Your task to perform on an android device: Open location settings Image 0: 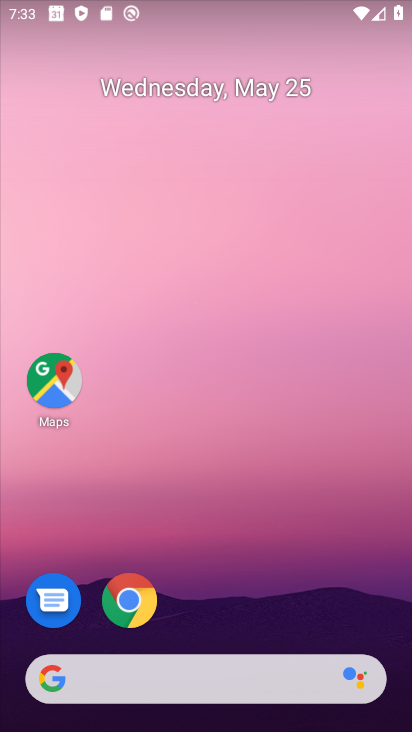
Step 0: drag from (370, 632) to (341, 242)
Your task to perform on an android device: Open location settings Image 1: 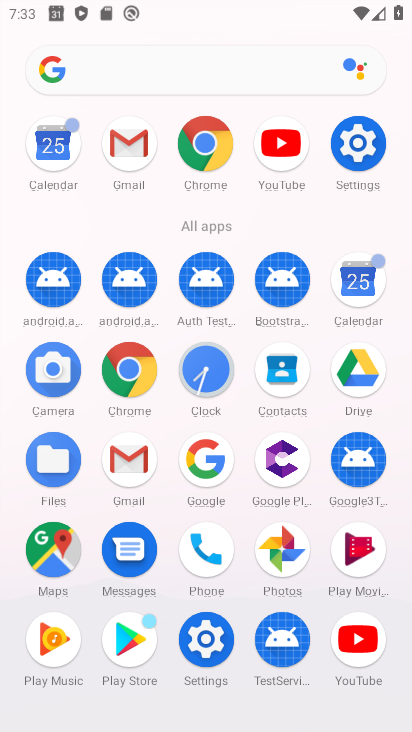
Step 1: click (206, 638)
Your task to perform on an android device: Open location settings Image 2: 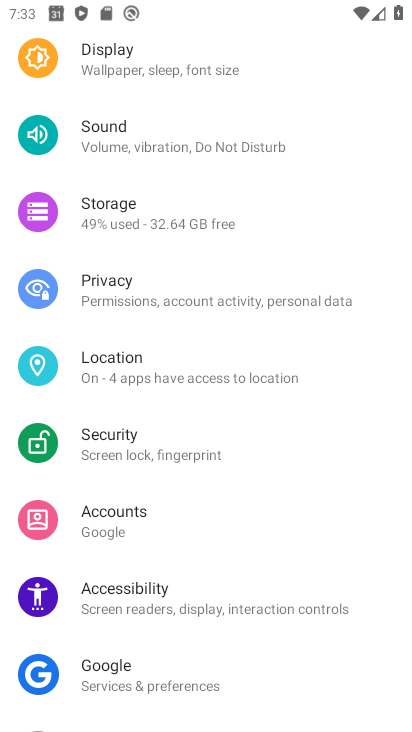
Step 2: click (110, 366)
Your task to perform on an android device: Open location settings Image 3: 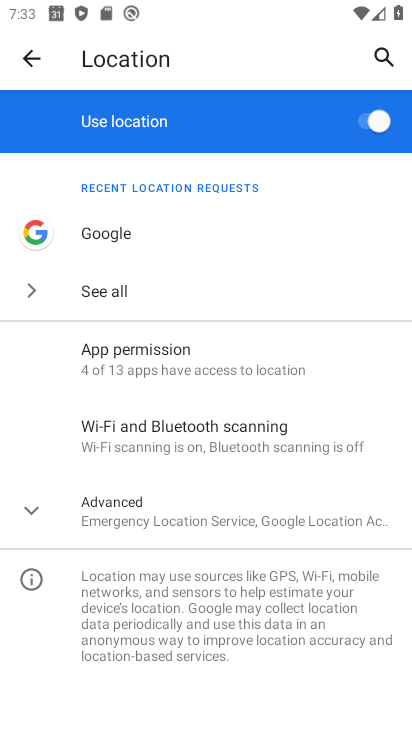
Step 3: task complete